Your task to perform on an android device: move an email to a new category in the gmail app Image 0: 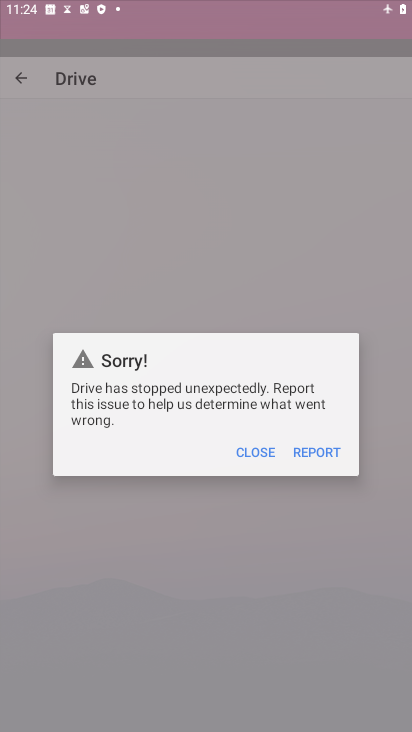
Step 0: click (280, 163)
Your task to perform on an android device: move an email to a new category in the gmail app Image 1: 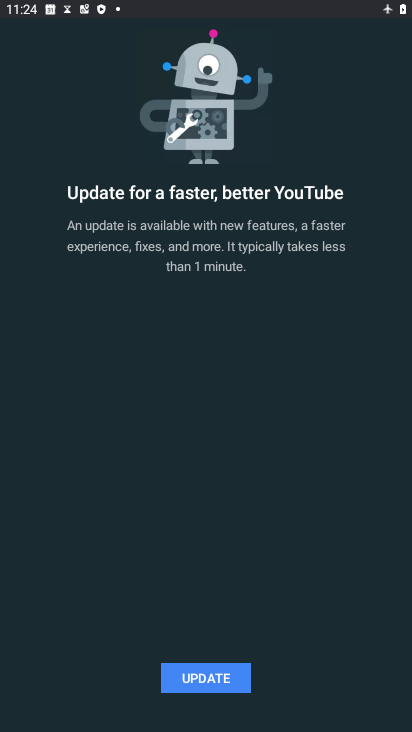
Step 1: press back button
Your task to perform on an android device: move an email to a new category in the gmail app Image 2: 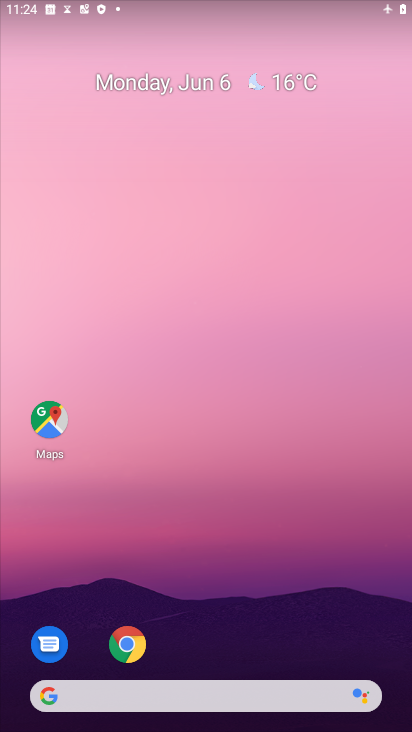
Step 2: drag from (227, 585) to (274, 61)
Your task to perform on an android device: move an email to a new category in the gmail app Image 3: 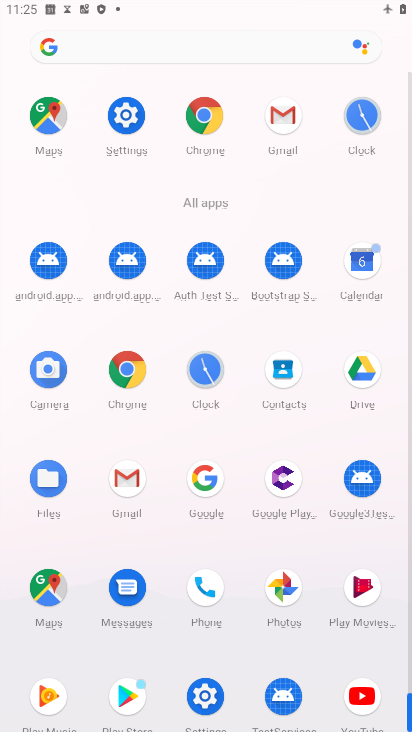
Step 3: click (127, 493)
Your task to perform on an android device: move an email to a new category in the gmail app Image 4: 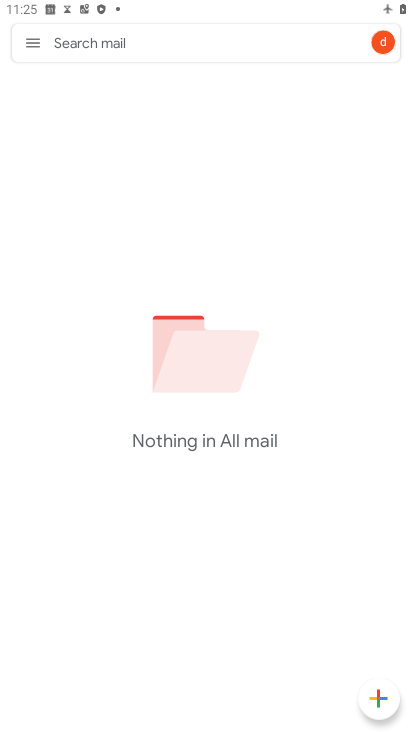
Step 4: click (31, 34)
Your task to perform on an android device: move an email to a new category in the gmail app Image 5: 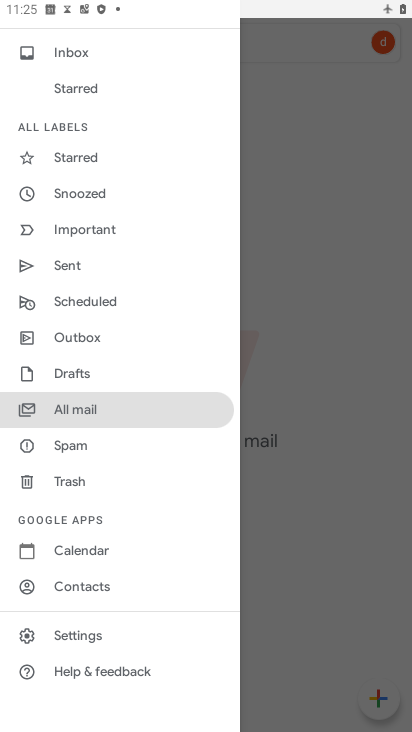
Step 5: click (92, 417)
Your task to perform on an android device: move an email to a new category in the gmail app Image 6: 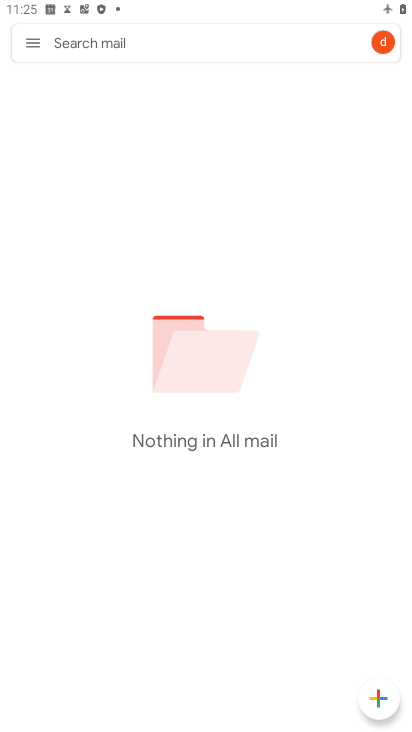
Step 6: task complete